Your task to perform on an android device: open wifi settings Image 0: 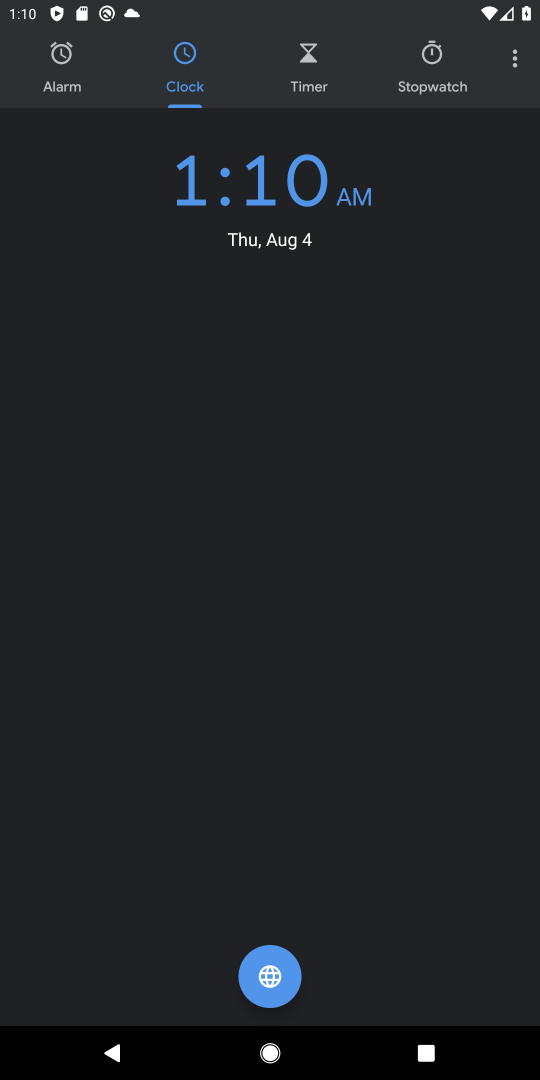
Step 0: press home button
Your task to perform on an android device: open wifi settings Image 1: 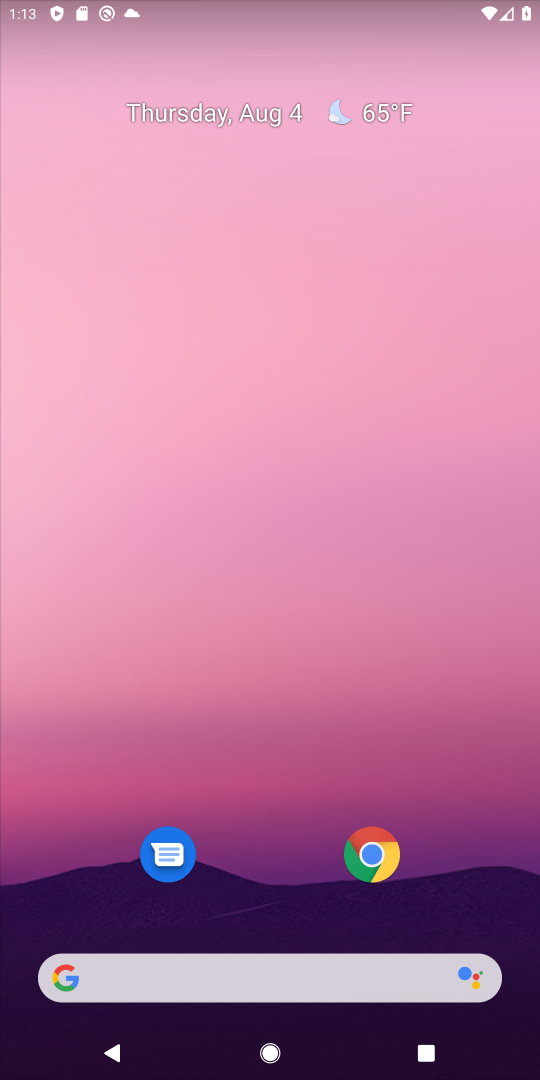
Step 1: drag from (307, 854) to (101, 1)
Your task to perform on an android device: open wifi settings Image 2: 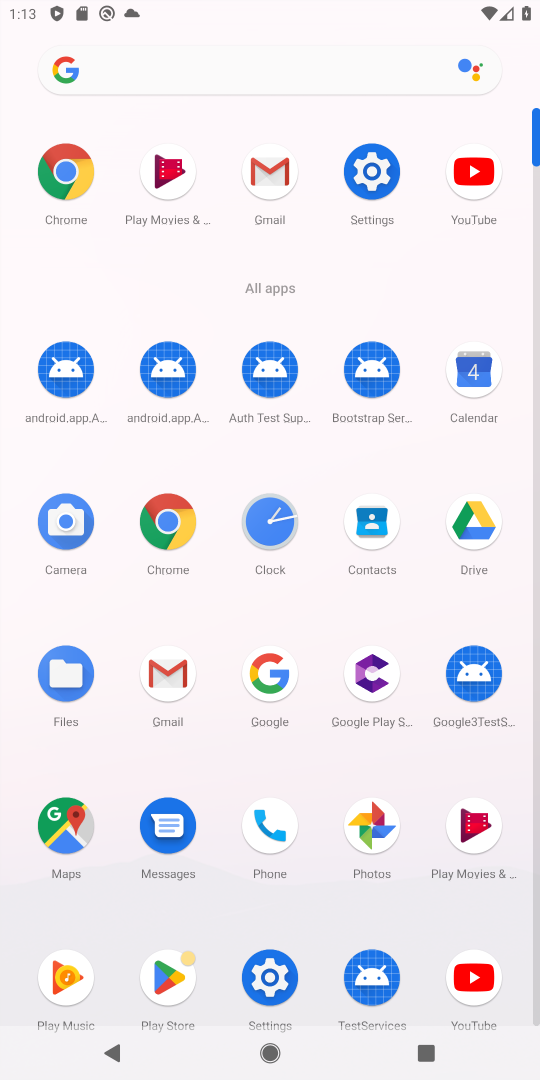
Step 2: click (368, 170)
Your task to perform on an android device: open wifi settings Image 3: 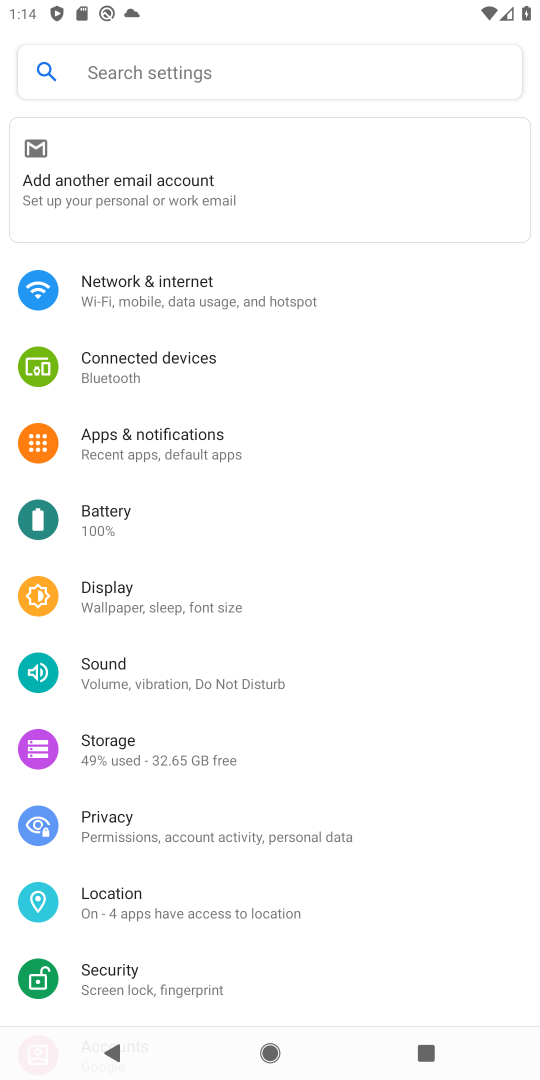
Step 3: click (193, 294)
Your task to perform on an android device: open wifi settings Image 4: 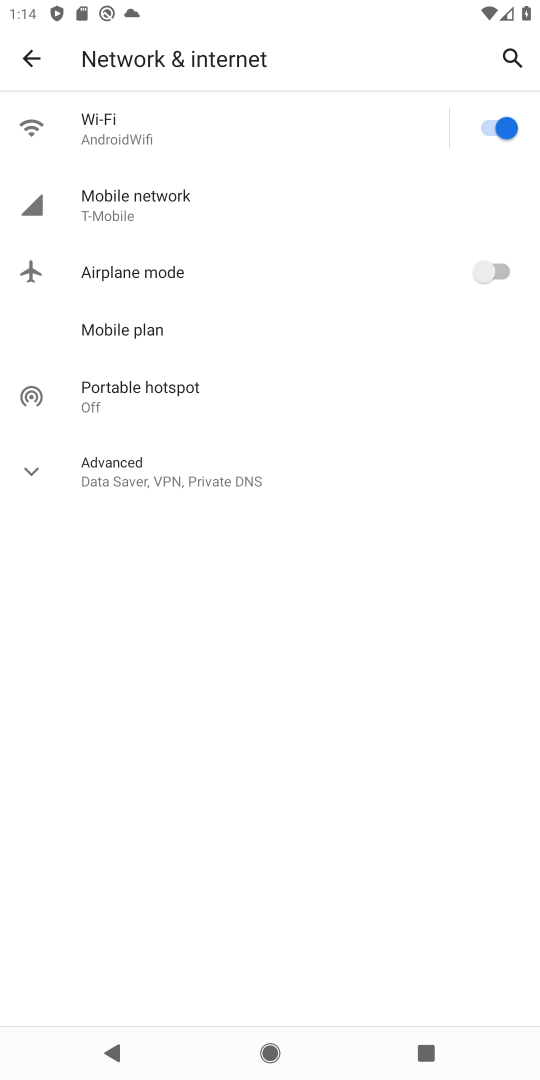
Step 4: task complete